Your task to perform on an android device: Go to Maps Image 0: 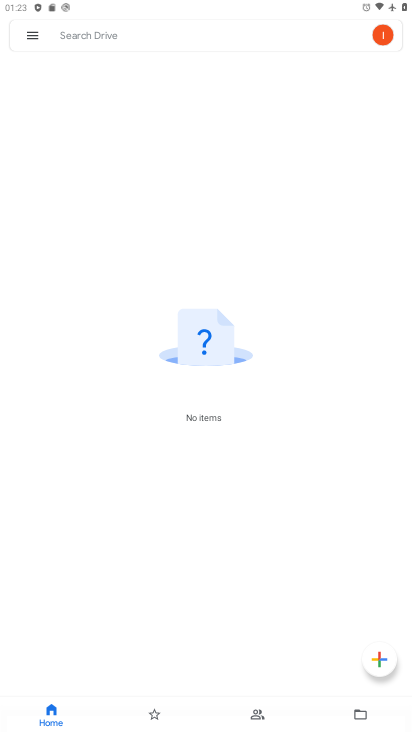
Step 0: press home button
Your task to perform on an android device: Go to Maps Image 1: 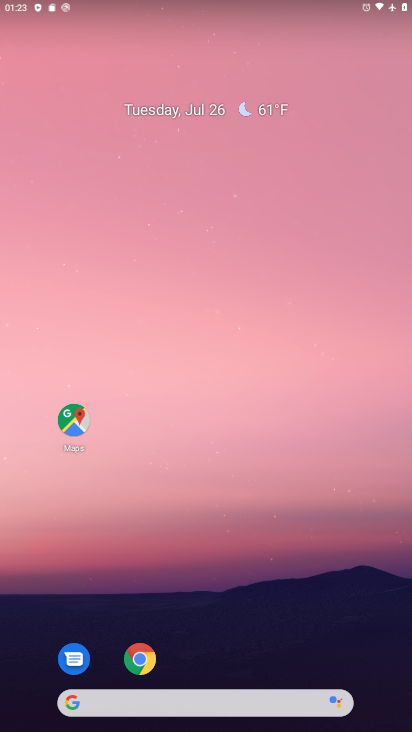
Step 1: drag from (292, 602) to (180, 66)
Your task to perform on an android device: Go to Maps Image 2: 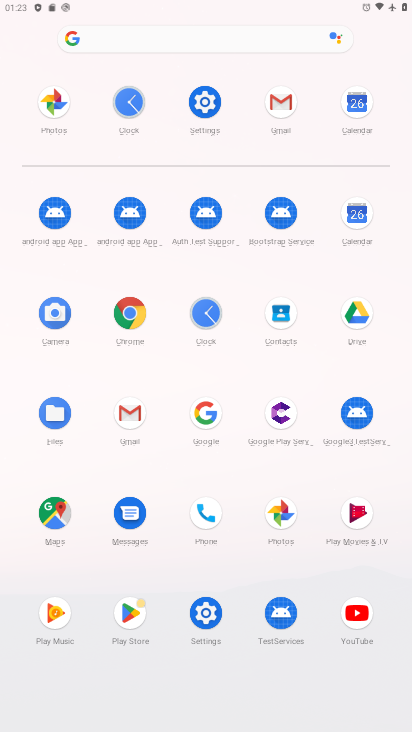
Step 2: click (51, 514)
Your task to perform on an android device: Go to Maps Image 3: 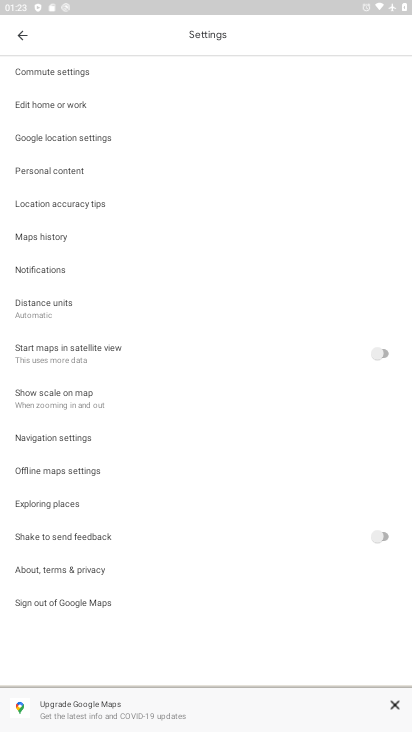
Step 3: task complete